Your task to perform on an android device: see creations saved in the google photos Image 0: 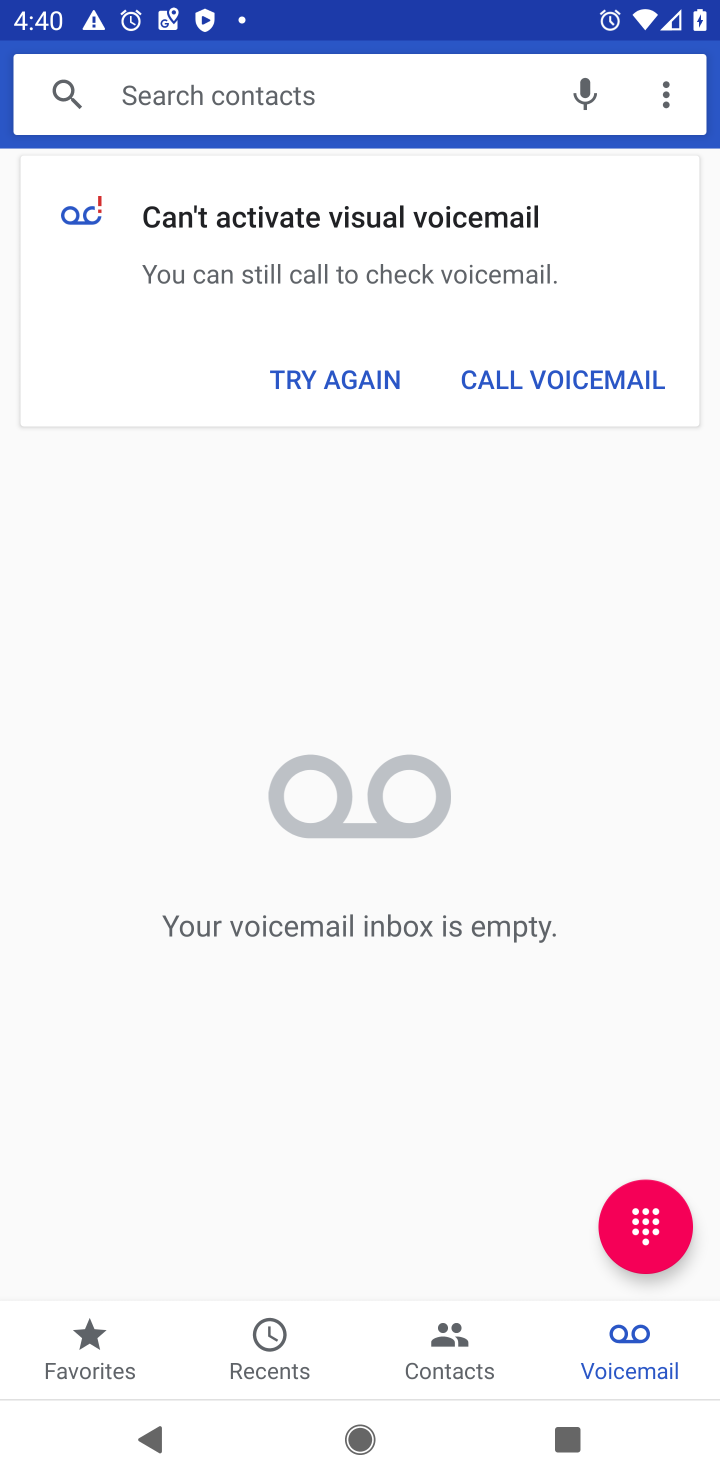
Step 0: press home button
Your task to perform on an android device: see creations saved in the google photos Image 1: 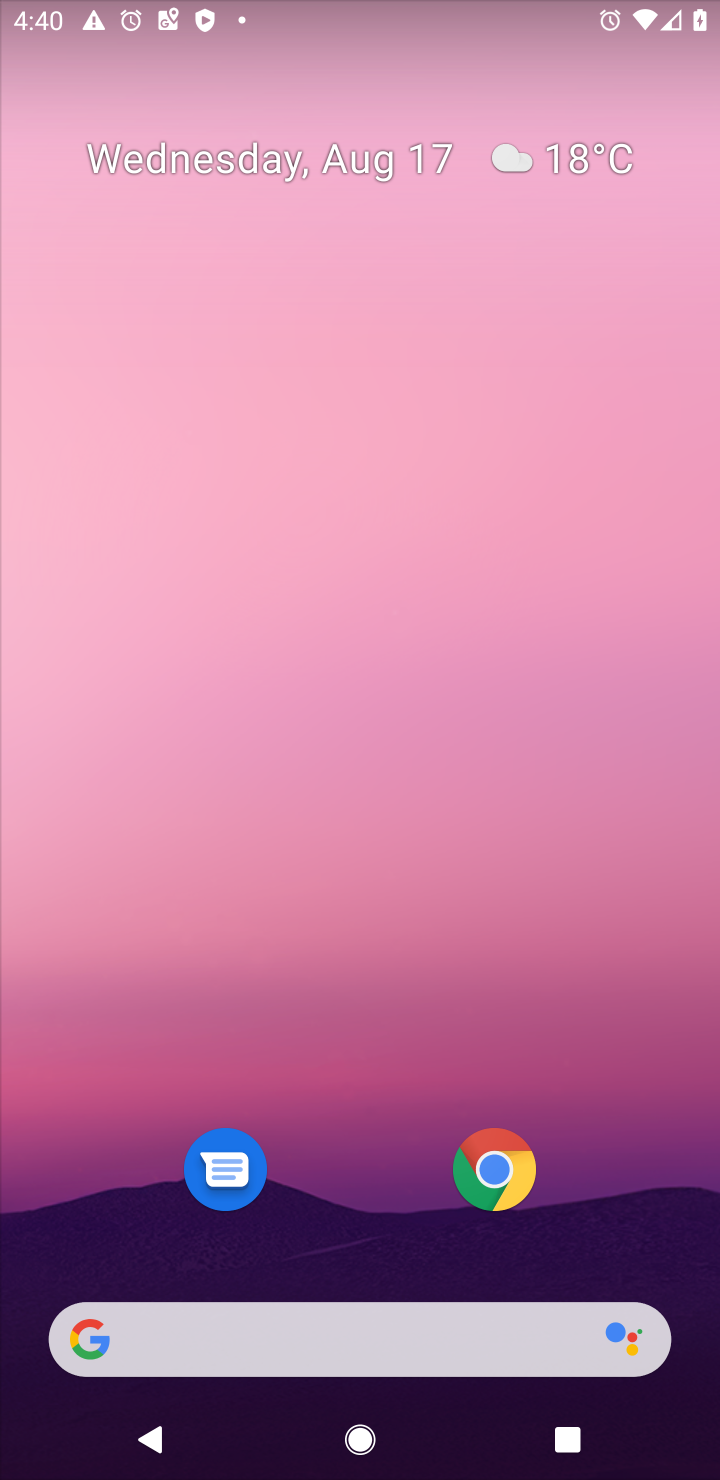
Step 1: drag from (431, 924) to (565, 204)
Your task to perform on an android device: see creations saved in the google photos Image 2: 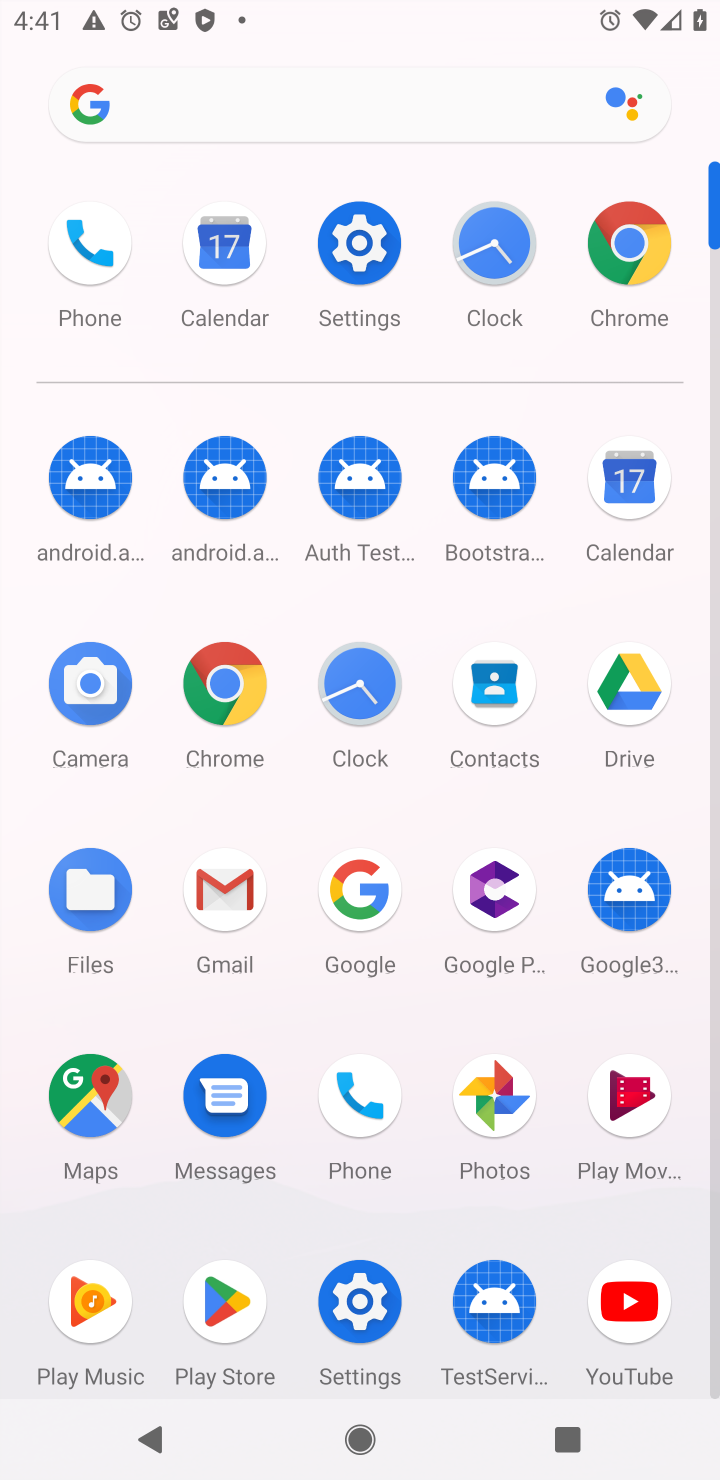
Step 2: click (497, 1091)
Your task to perform on an android device: see creations saved in the google photos Image 3: 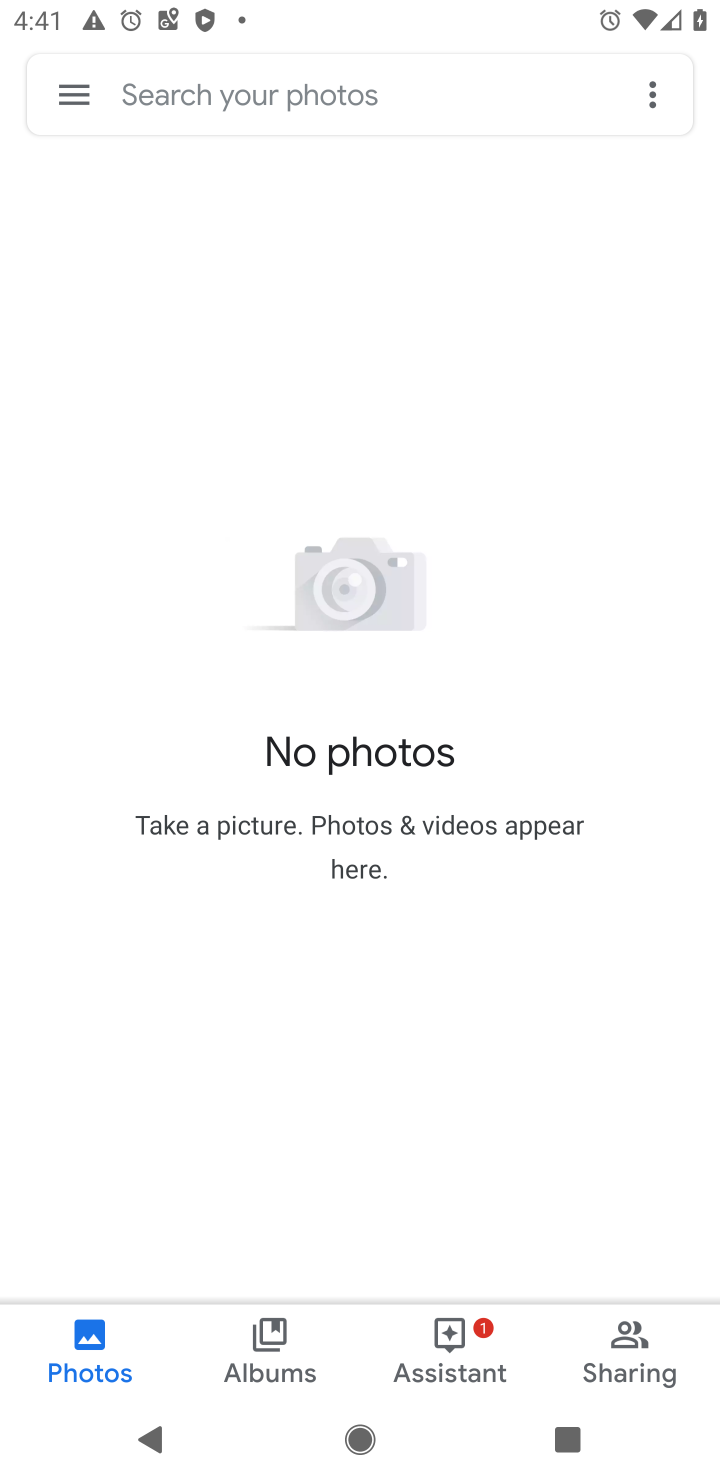
Step 3: click (174, 94)
Your task to perform on an android device: see creations saved in the google photos Image 4: 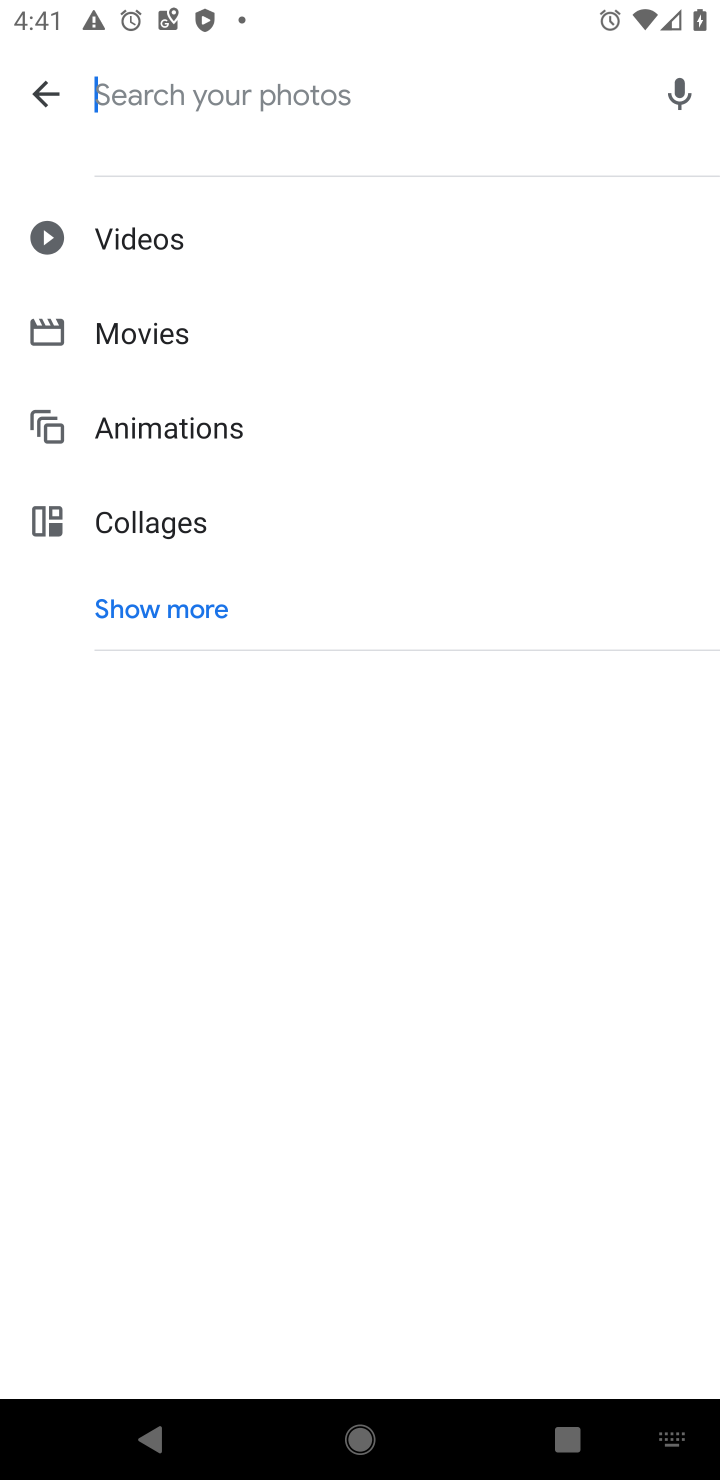
Step 4: click (159, 590)
Your task to perform on an android device: see creations saved in the google photos Image 5: 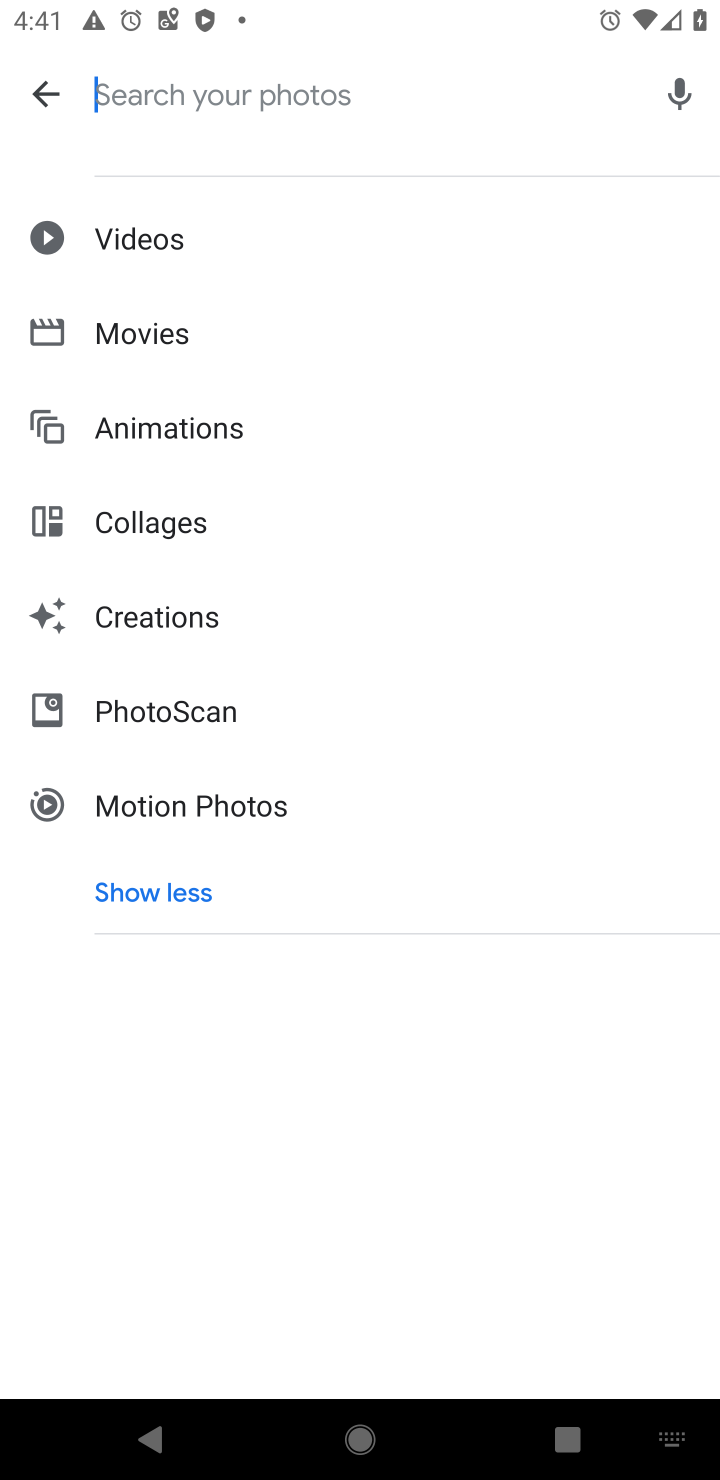
Step 5: click (133, 880)
Your task to perform on an android device: see creations saved in the google photos Image 6: 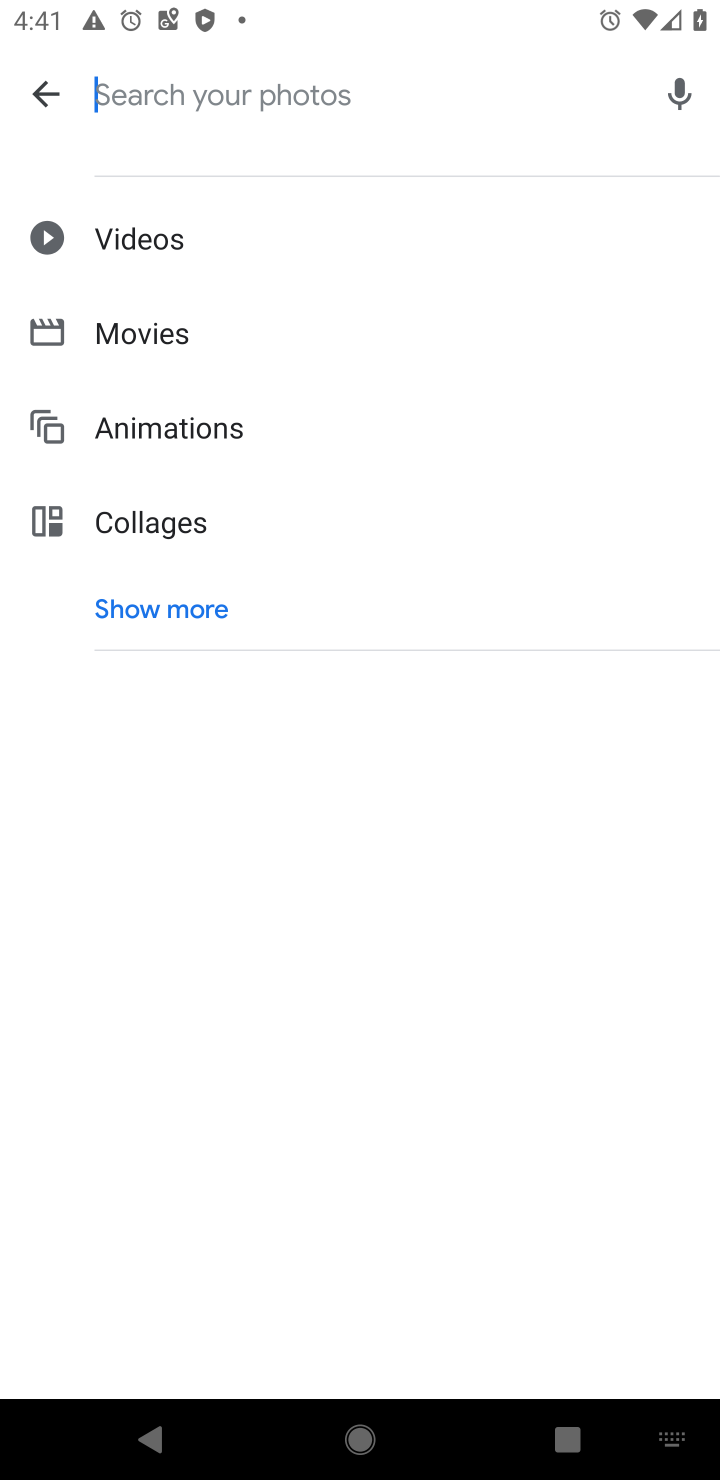
Step 6: click (179, 600)
Your task to perform on an android device: see creations saved in the google photos Image 7: 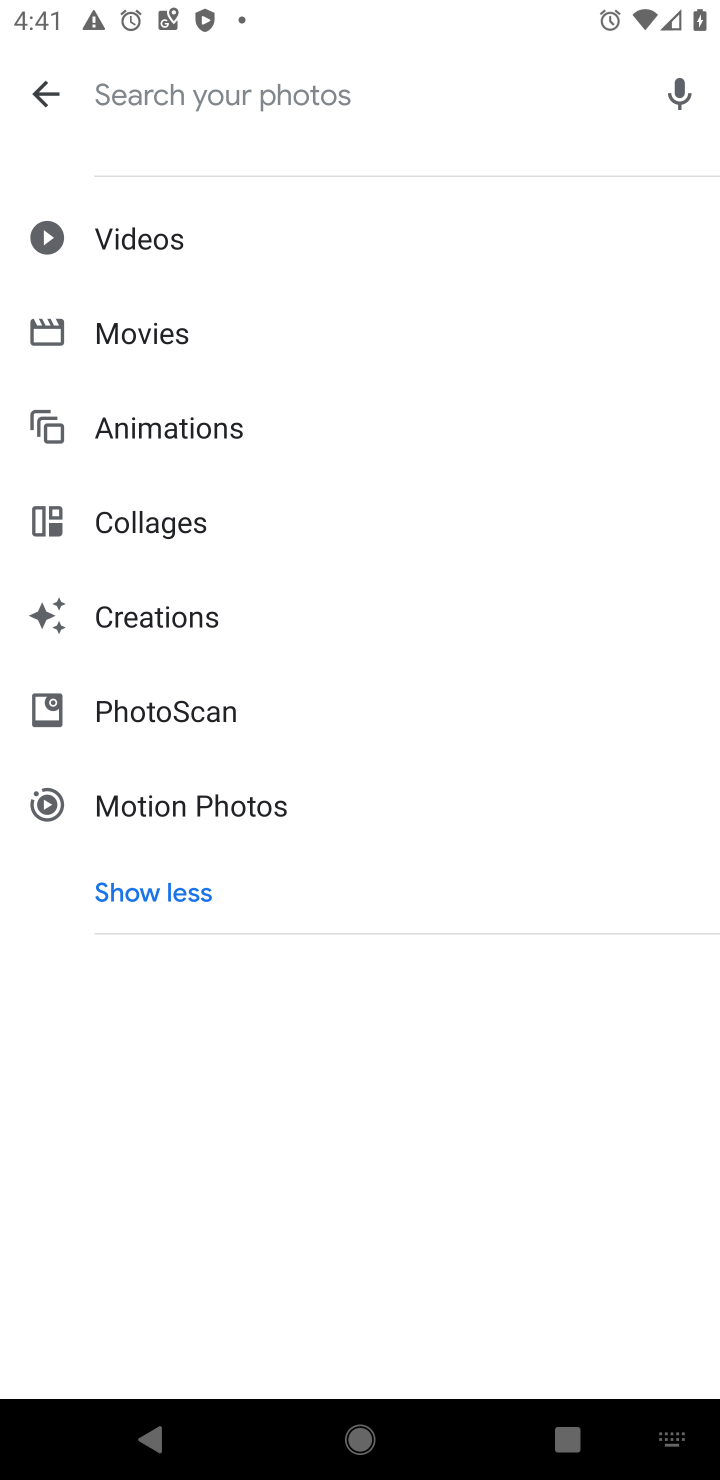
Step 7: click (159, 606)
Your task to perform on an android device: see creations saved in the google photos Image 8: 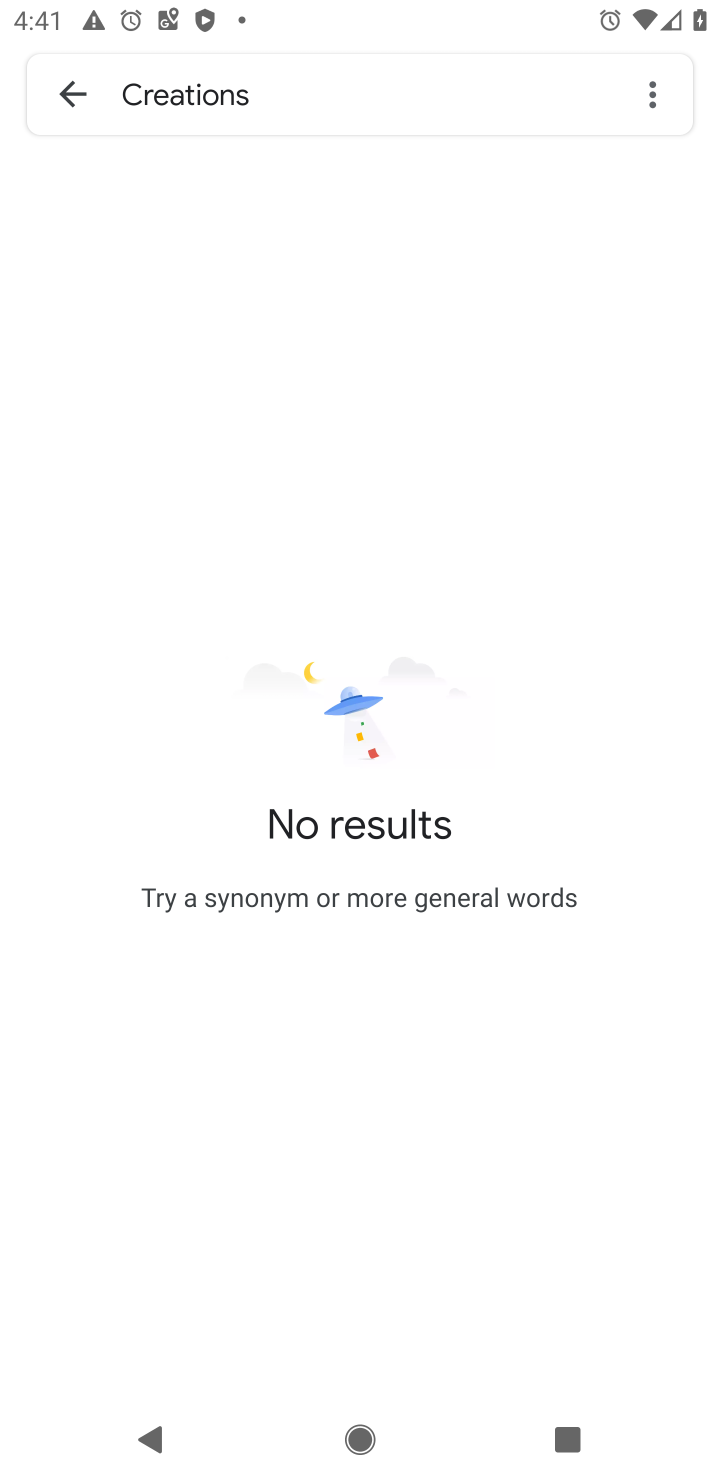
Step 8: task complete